Your task to perform on an android device: clear all cookies in the chrome app Image 0: 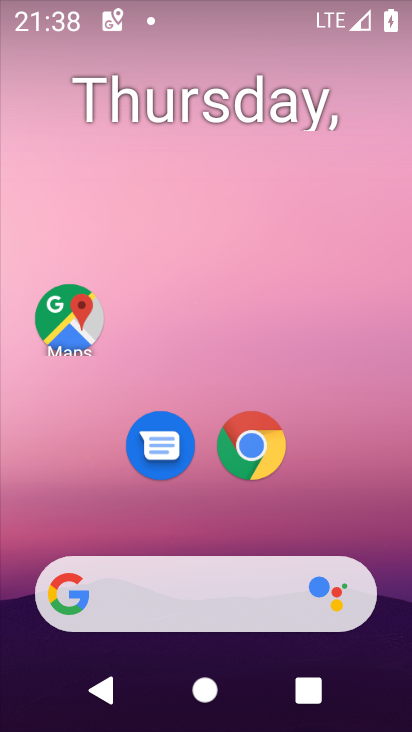
Step 0: drag from (192, 517) to (236, 173)
Your task to perform on an android device: clear all cookies in the chrome app Image 1: 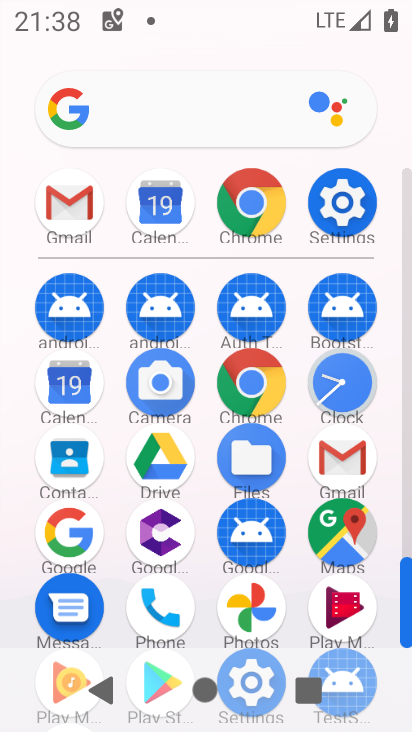
Step 1: click (257, 193)
Your task to perform on an android device: clear all cookies in the chrome app Image 2: 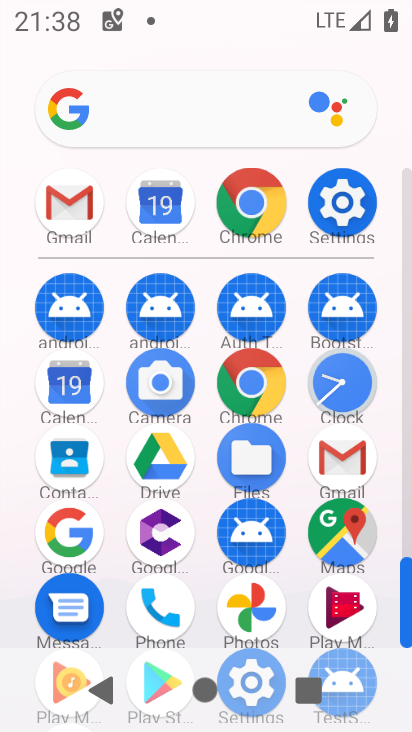
Step 2: click (257, 193)
Your task to perform on an android device: clear all cookies in the chrome app Image 3: 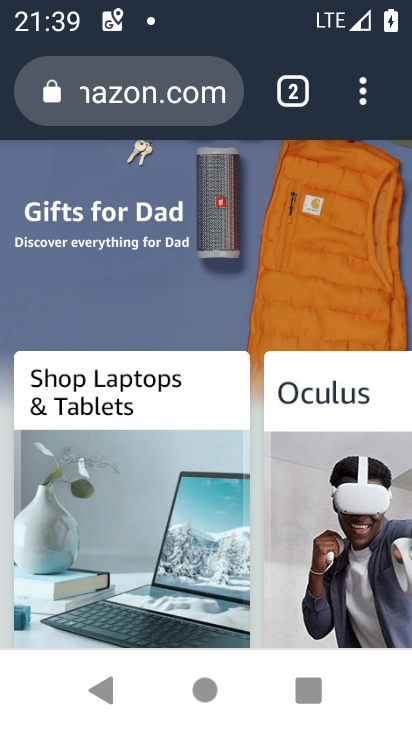
Step 3: click (368, 88)
Your task to perform on an android device: clear all cookies in the chrome app Image 4: 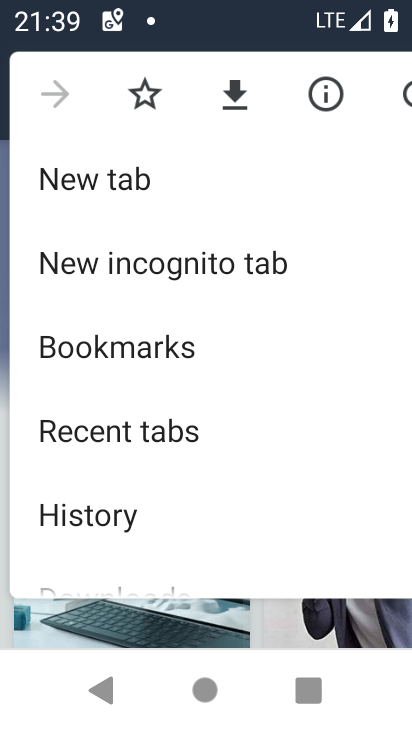
Step 4: click (138, 523)
Your task to perform on an android device: clear all cookies in the chrome app Image 5: 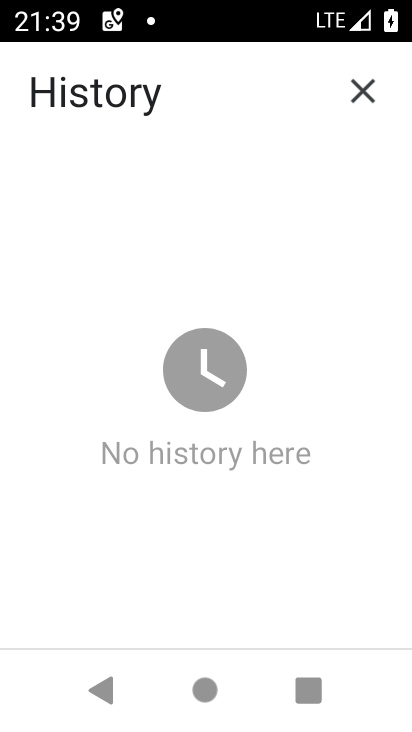
Step 5: task complete